Your task to perform on an android device: Open accessibility settings Image 0: 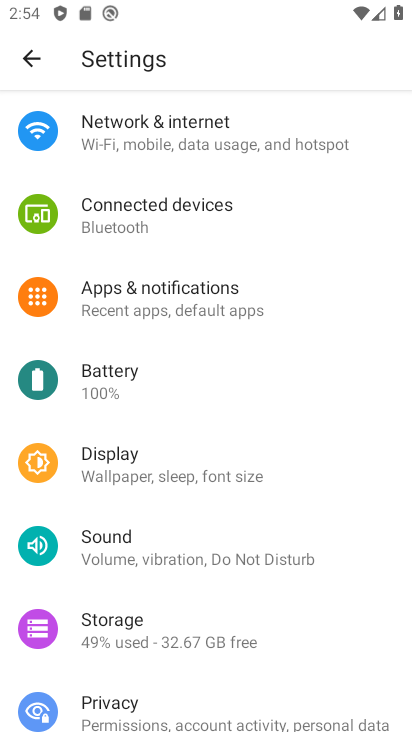
Step 0: drag from (172, 597) to (132, 147)
Your task to perform on an android device: Open accessibility settings Image 1: 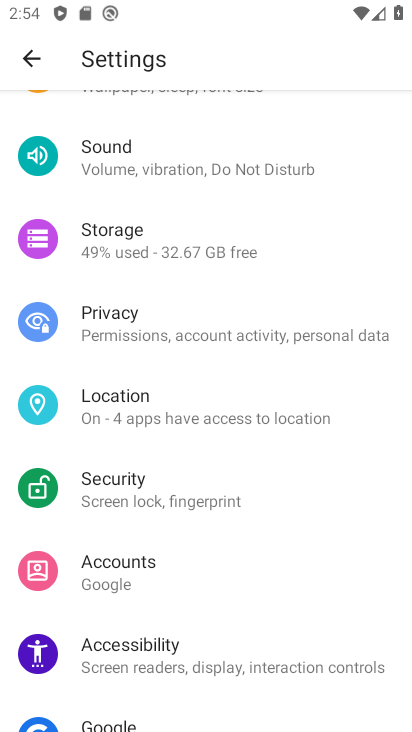
Step 1: click (179, 657)
Your task to perform on an android device: Open accessibility settings Image 2: 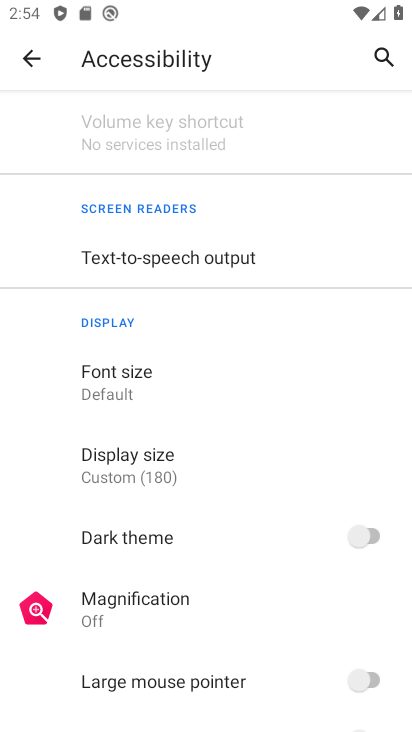
Step 2: task complete